Your task to perform on an android device: clear history in the chrome app Image 0: 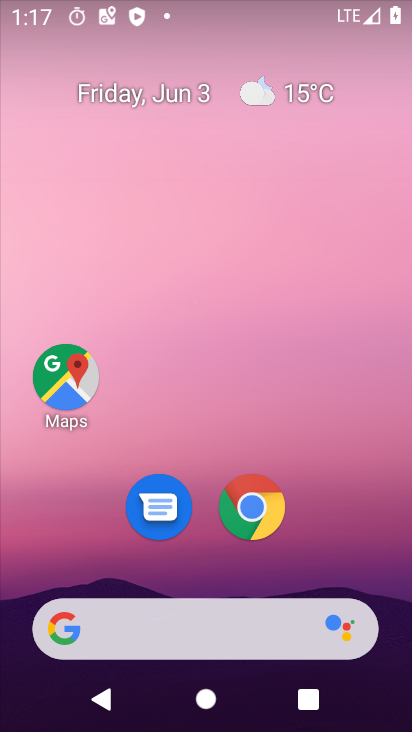
Step 0: drag from (394, 437) to (379, 352)
Your task to perform on an android device: clear history in the chrome app Image 1: 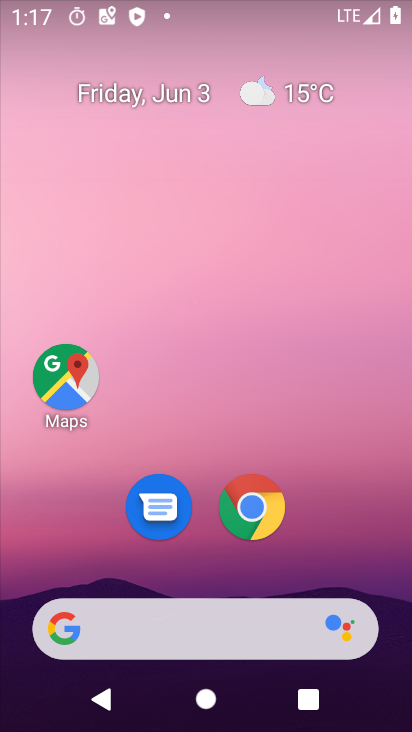
Step 1: drag from (299, 184) to (192, 7)
Your task to perform on an android device: clear history in the chrome app Image 2: 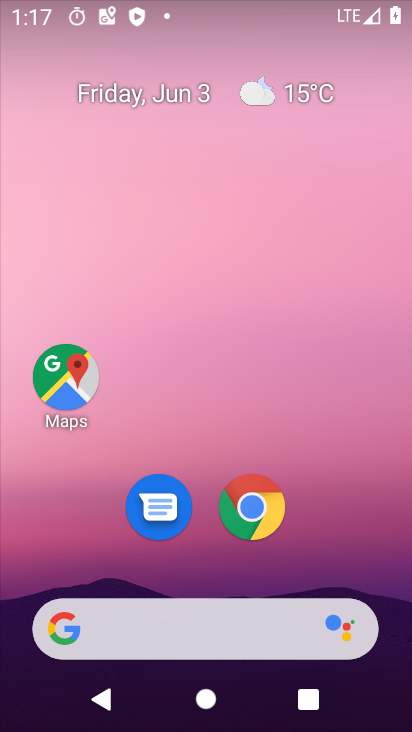
Step 2: drag from (391, 607) to (319, 110)
Your task to perform on an android device: clear history in the chrome app Image 3: 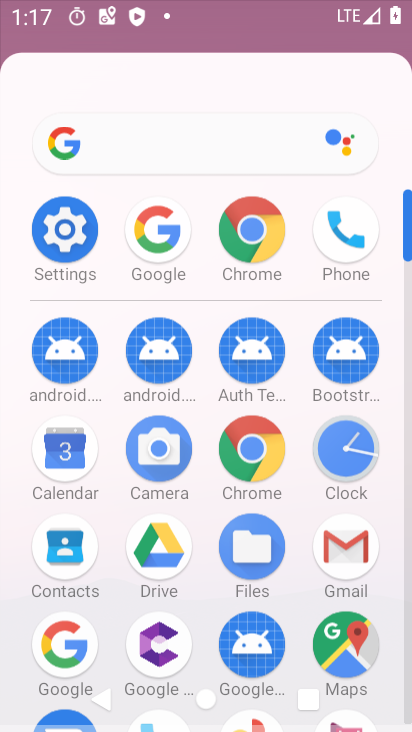
Step 3: click (281, 14)
Your task to perform on an android device: clear history in the chrome app Image 4: 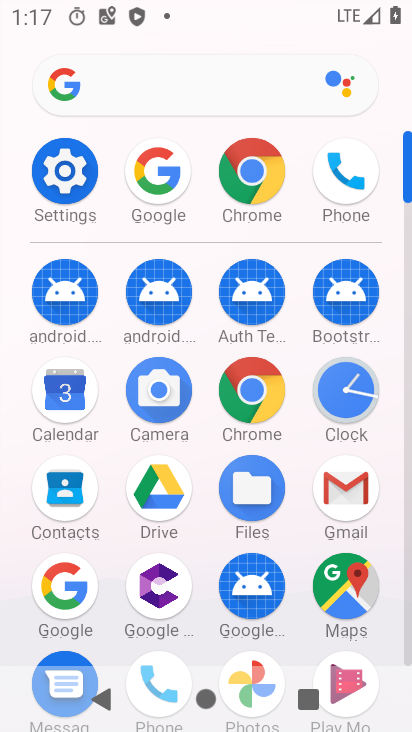
Step 4: click (244, 187)
Your task to perform on an android device: clear history in the chrome app Image 5: 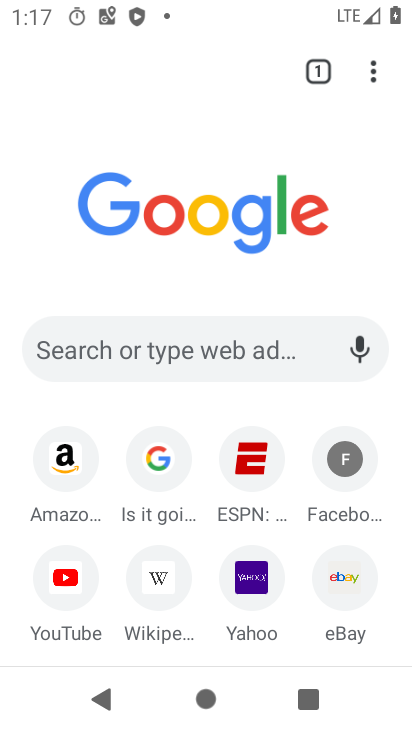
Step 5: click (376, 56)
Your task to perform on an android device: clear history in the chrome app Image 6: 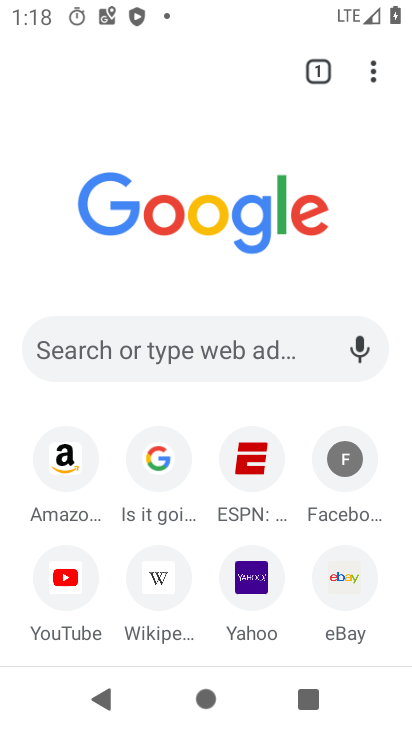
Step 6: click (370, 60)
Your task to perform on an android device: clear history in the chrome app Image 7: 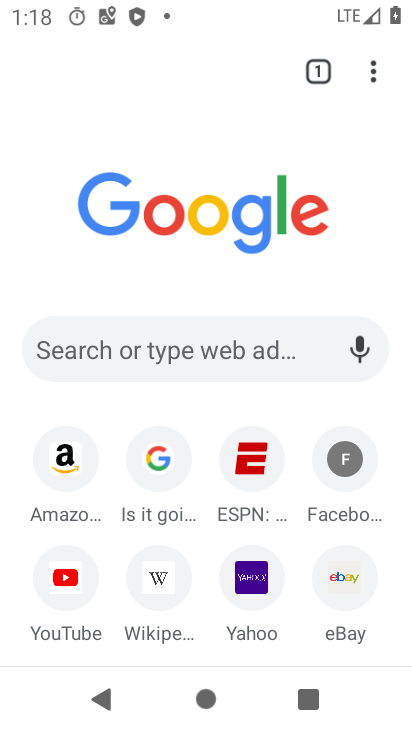
Step 7: click (370, 60)
Your task to perform on an android device: clear history in the chrome app Image 8: 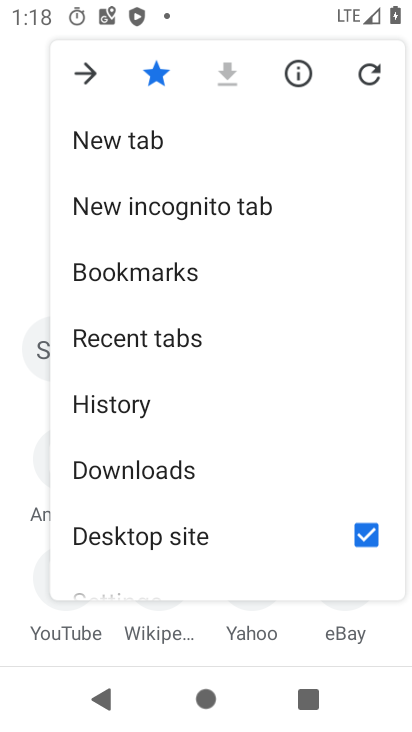
Step 8: click (117, 418)
Your task to perform on an android device: clear history in the chrome app Image 9: 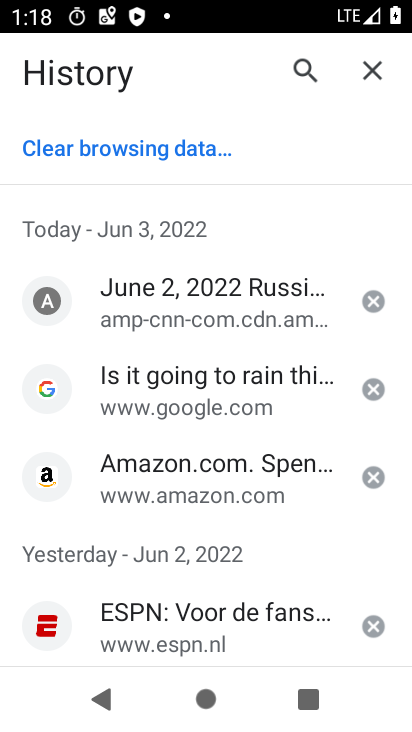
Step 9: click (97, 166)
Your task to perform on an android device: clear history in the chrome app Image 10: 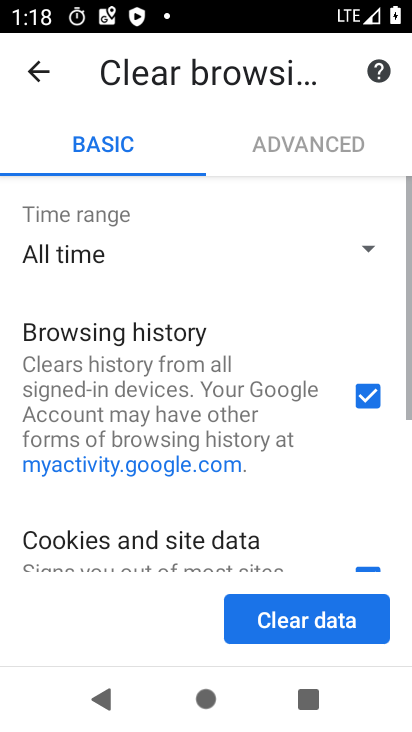
Step 10: click (334, 605)
Your task to perform on an android device: clear history in the chrome app Image 11: 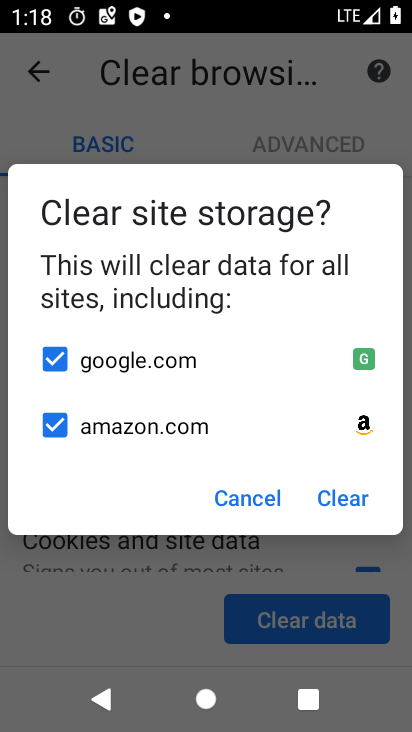
Step 11: click (332, 508)
Your task to perform on an android device: clear history in the chrome app Image 12: 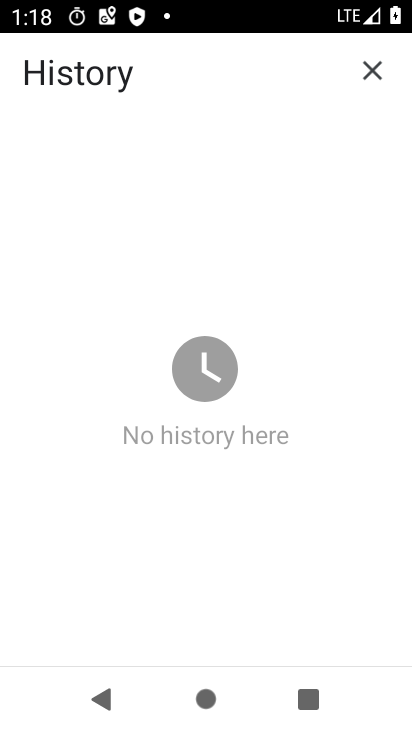
Step 12: task complete